Your task to perform on an android device: Go to eBay Image 0: 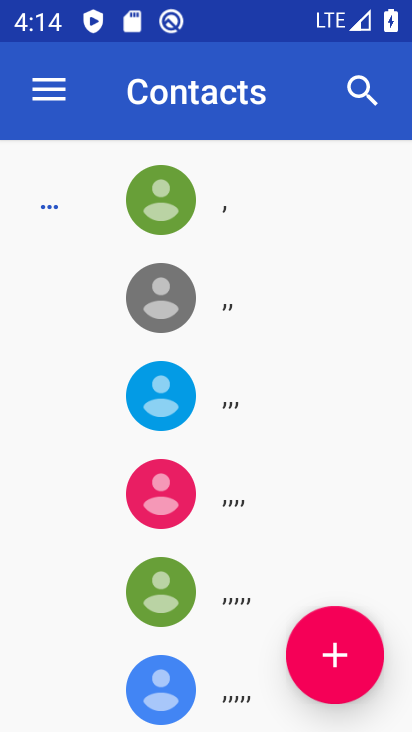
Step 0: press home button
Your task to perform on an android device: Go to eBay Image 1: 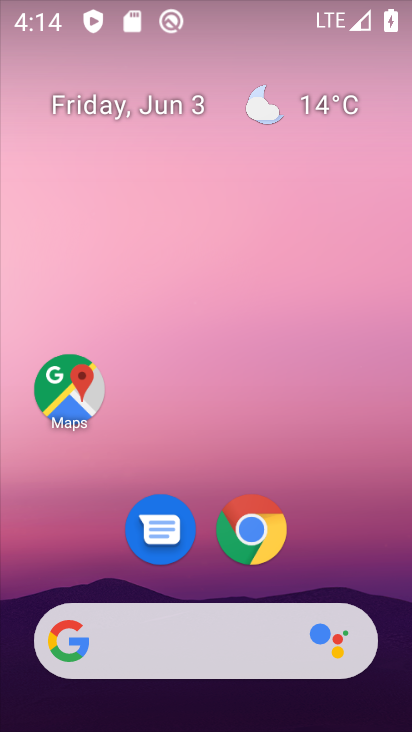
Step 1: click (249, 525)
Your task to perform on an android device: Go to eBay Image 2: 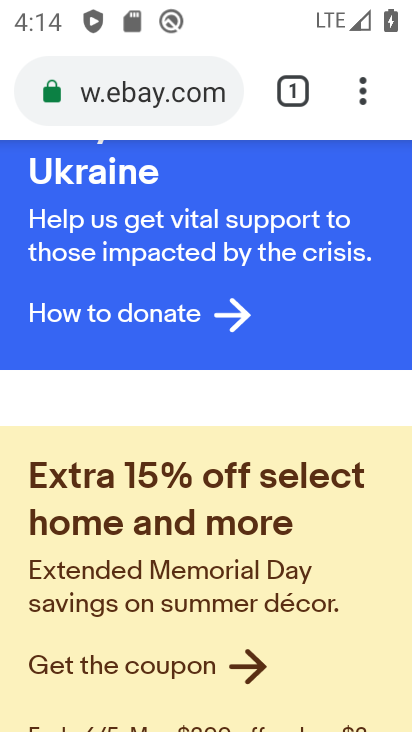
Step 2: drag from (237, 145) to (216, 731)
Your task to perform on an android device: Go to eBay Image 3: 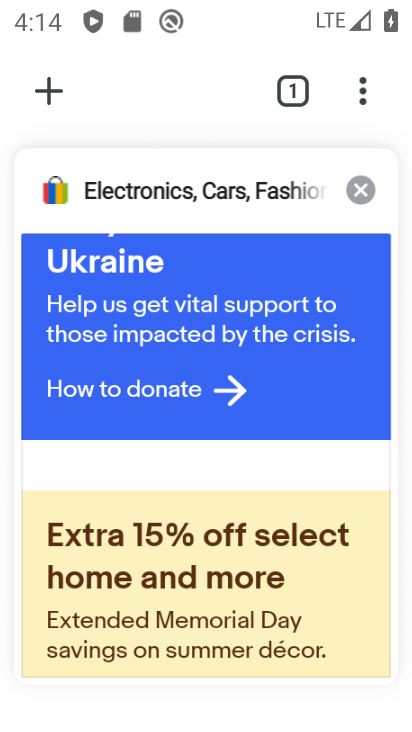
Step 3: click (307, 328)
Your task to perform on an android device: Go to eBay Image 4: 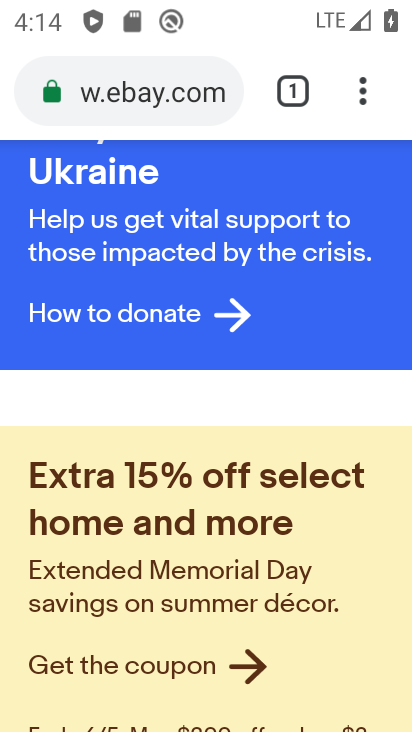
Step 4: task complete